Your task to perform on an android device: Go to Google Image 0: 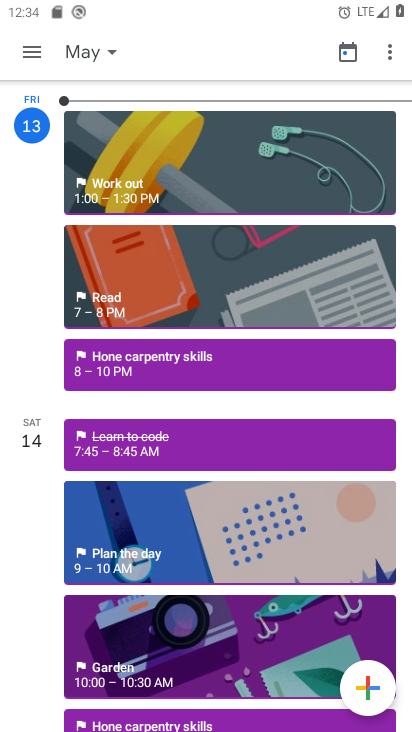
Step 0: press home button
Your task to perform on an android device: Go to Google Image 1: 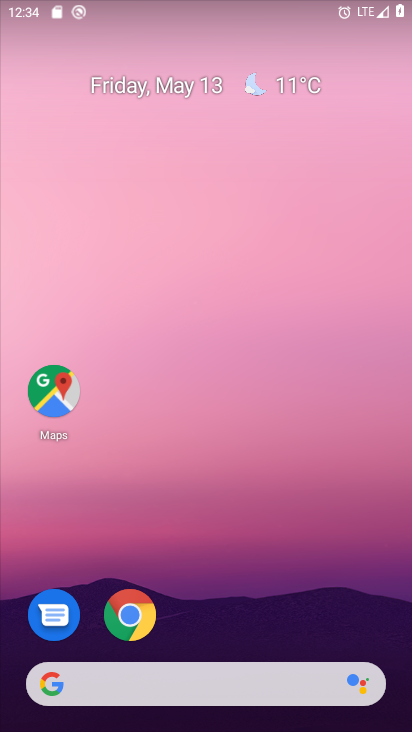
Step 1: drag from (226, 533) to (261, 91)
Your task to perform on an android device: Go to Google Image 2: 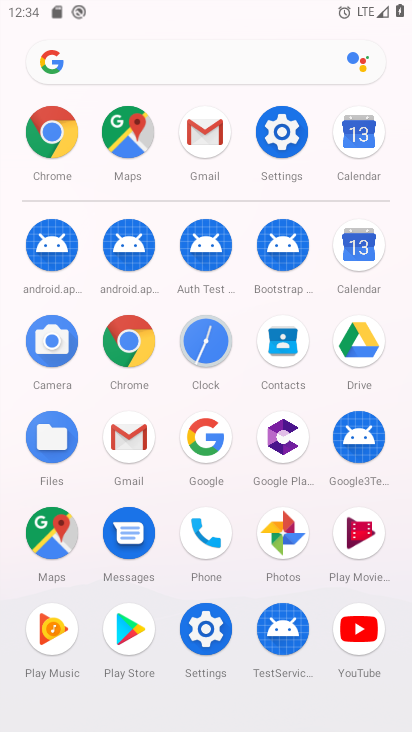
Step 2: click (197, 439)
Your task to perform on an android device: Go to Google Image 3: 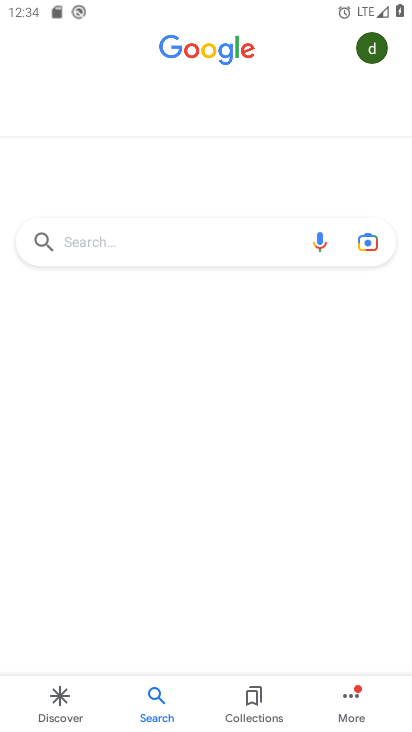
Step 3: task complete